Your task to perform on an android device: Go to ESPN.com Image 0: 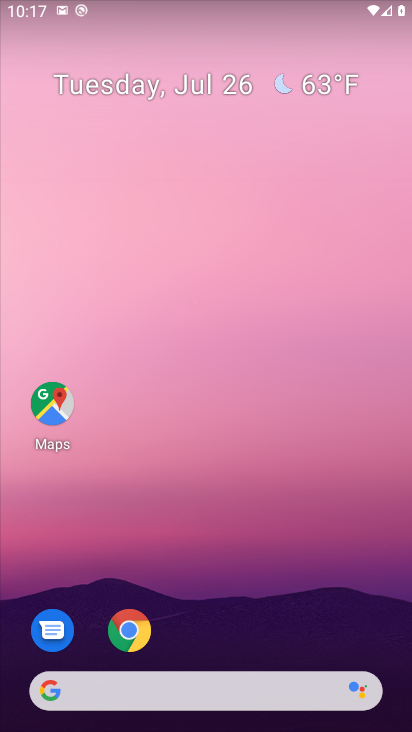
Step 0: press home button
Your task to perform on an android device: Go to ESPN.com Image 1: 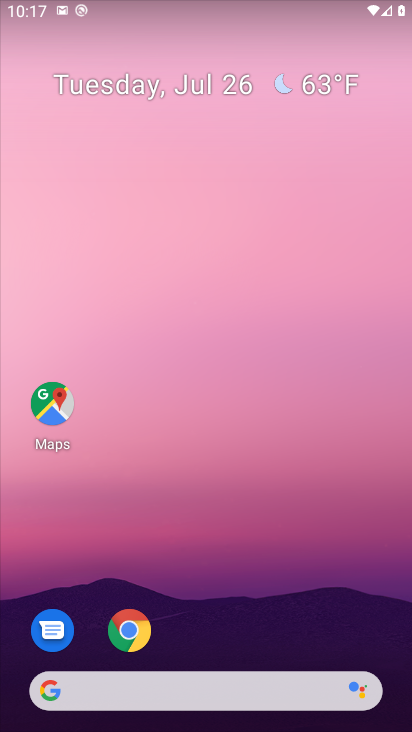
Step 1: click (124, 623)
Your task to perform on an android device: Go to ESPN.com Image 2: 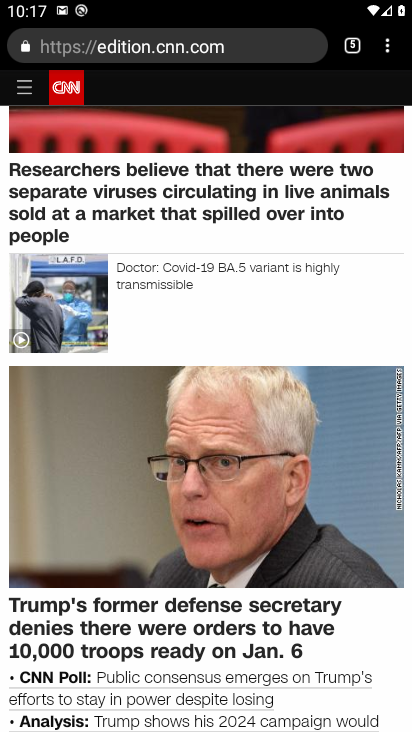
Step 2: click (350, 45)
Your task to perform on an android device: Go to ESPN.com Image 3: 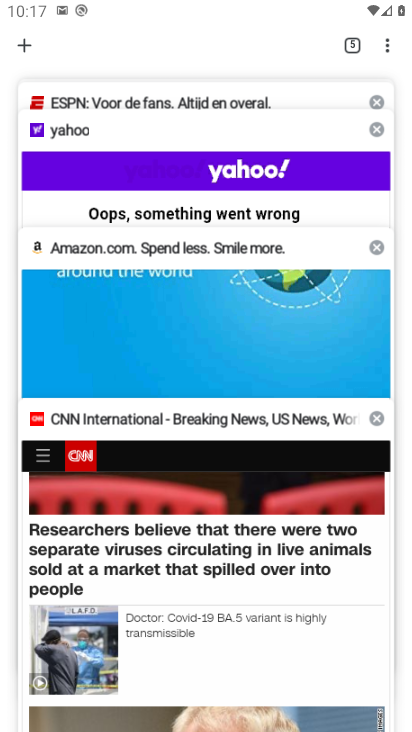
Step 3: click (157, 92)
Your task to perform on an android device: Go to ESPN.com Image 4: 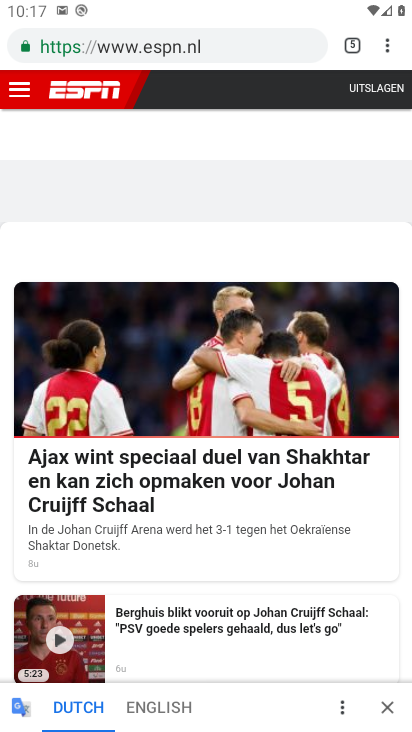
Step 4: task complete